Your task to perform on an android device: Open Youtube and go to "Your channel" Image 0: 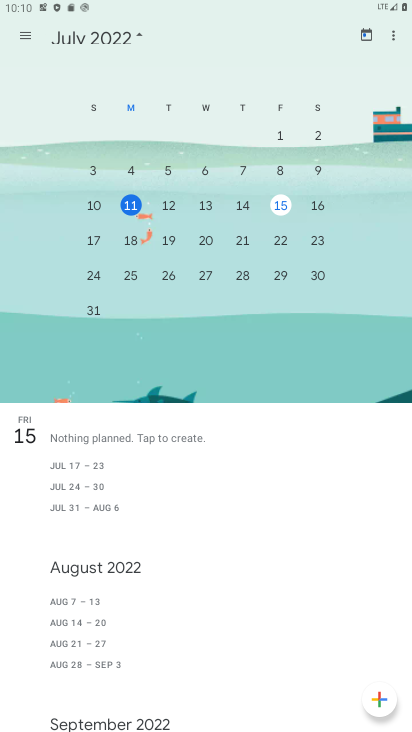
Step 0: press home button
Your task to perform on an android device: Open Youtube and go to "Your channel" Image 1: 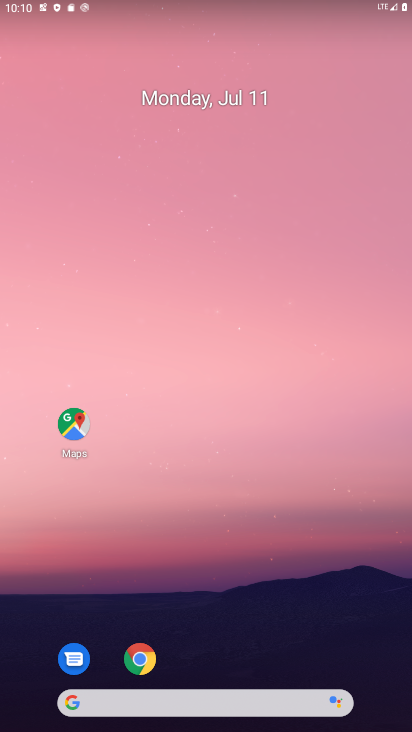
Step 1: drag from (207, 726) to (187, 134)
Your task to perform on an android device: Open Youtube and go to "Your channel" Image 2: 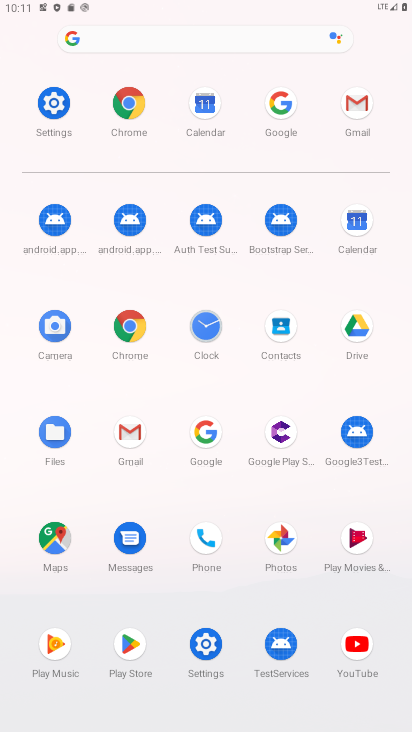
Step 2: click (355, 646)
Your task to perform on an android device: Open Youtube and go to "Your channel" Image 3: 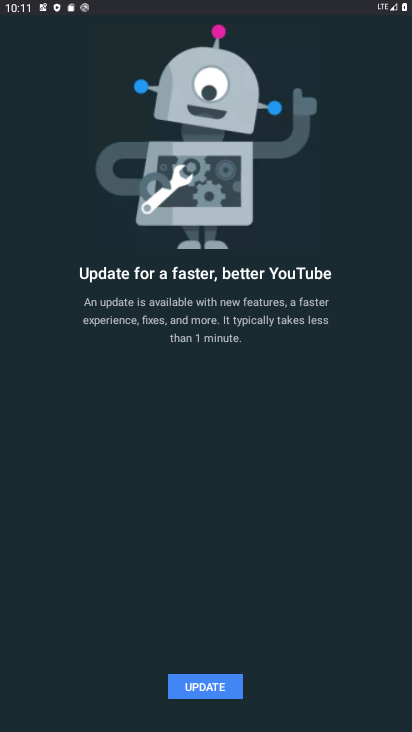
Step 3: task complete